Your task to perform on an android device: open wifi settings Image 0: 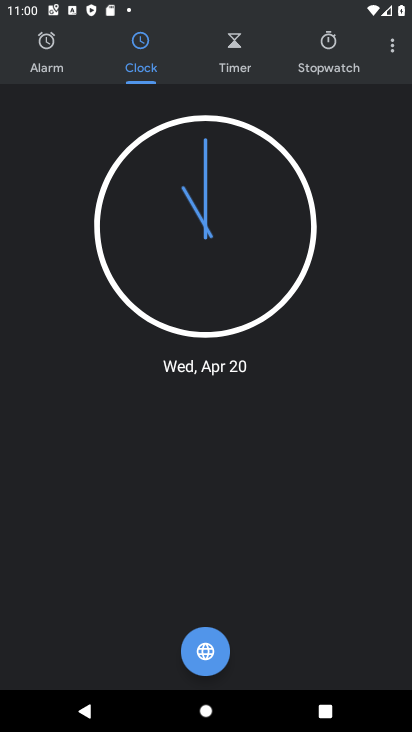
Step 0: press home button
Your task to perform on an android device: open wifi settings Image 1: 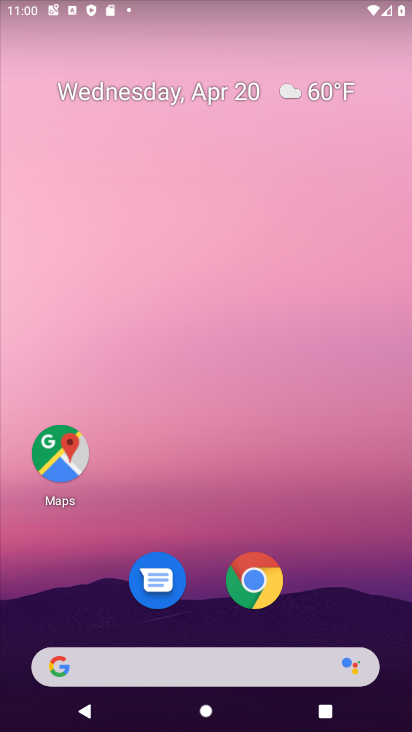
Step 1: drag from (129, 665) to (103, 181)
Your task to perform on an android device: open wifi settings Image 2: 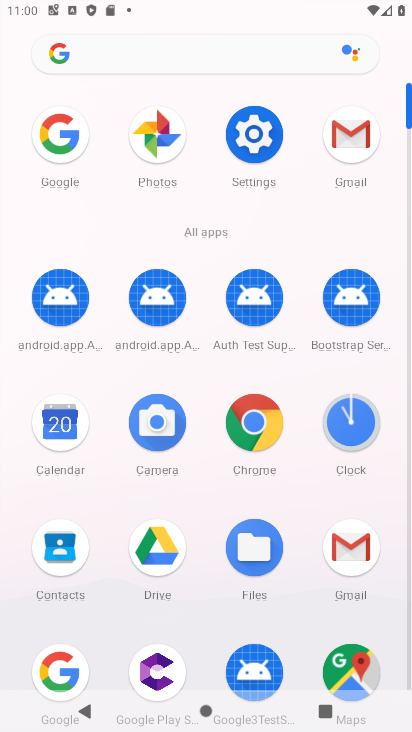
Step 2: click (249, 136)
Your task to perform on an android device: open wifi settings Image 3: 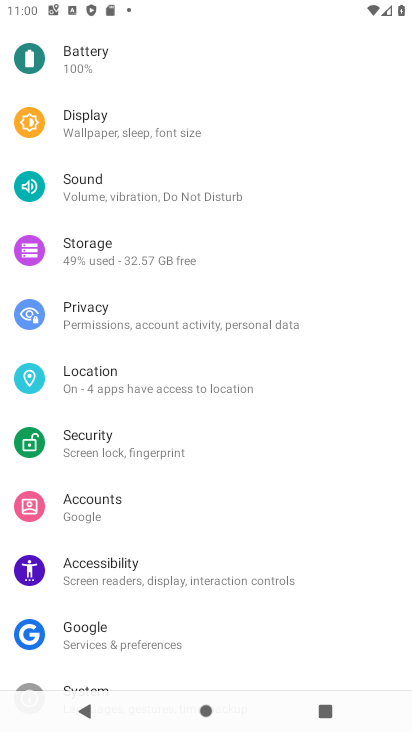
Step 3: drag from (147, 145) to (118, 601)
Your task to perform on an android device: open wifi settings Image 4: 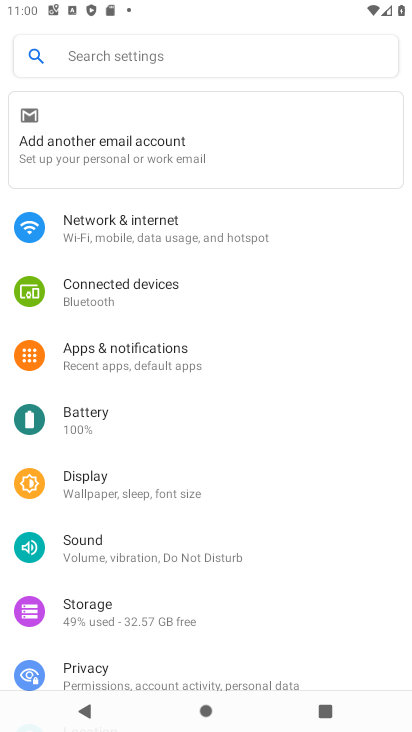
Step 4: click (116, 230)
Your task to perform on an android device: open wifi settings Image 5: 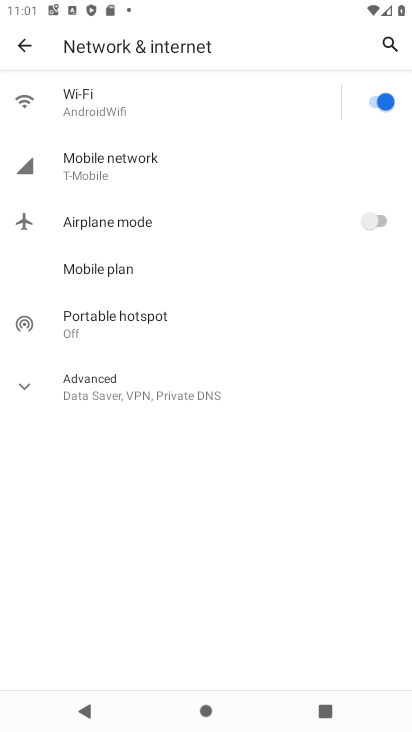
Step 5: click (63, 106)
Your task to perform on an android device: open wifi settings Image 6: 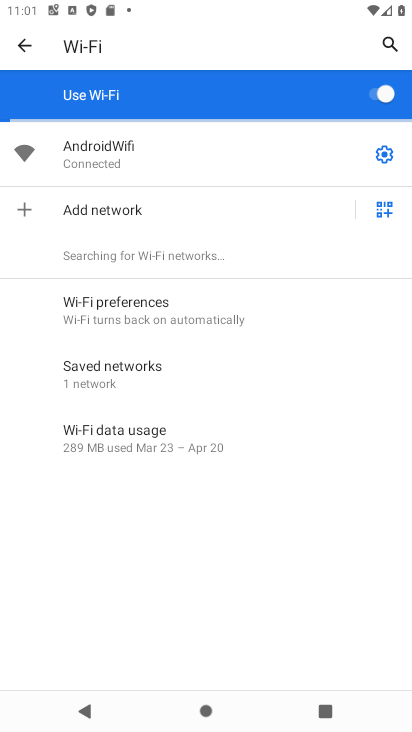
Step 6: task complete